Your task to perform on an android device: change the clock display to show seconds Image 0: 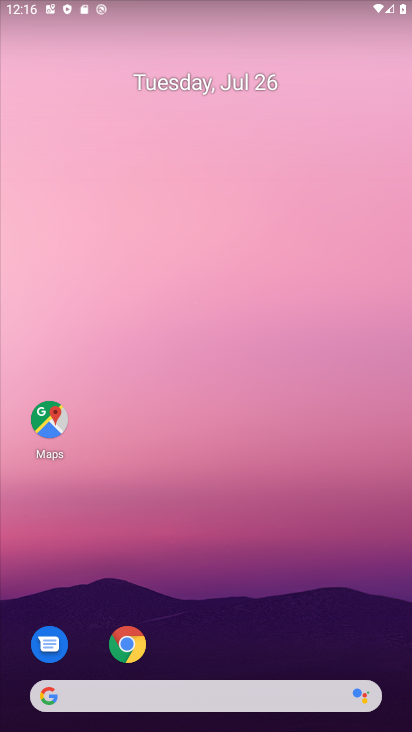
Step 0: drag from (253, 601) to (224, 190)
Your task to perform on an android device: change the clock display to show seconds Image 1: 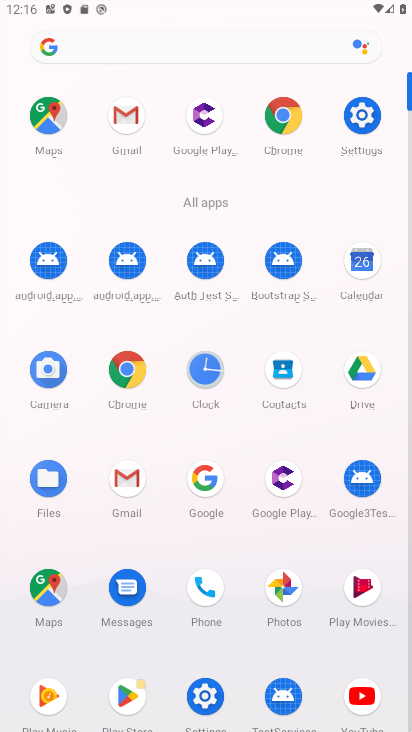
Step 1: click (213, 363)
Your task to perform on an android device: change the clock display to show seconds Image 2: 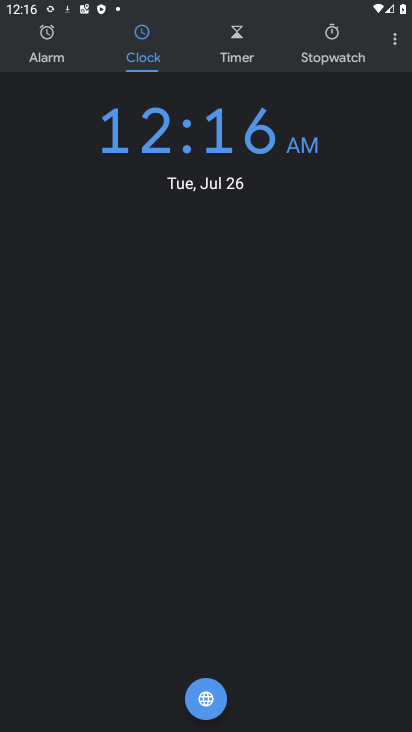
Step 2: click (403, 49)
Your task to perform on an android device: change the clock display to show seconds Image 3: 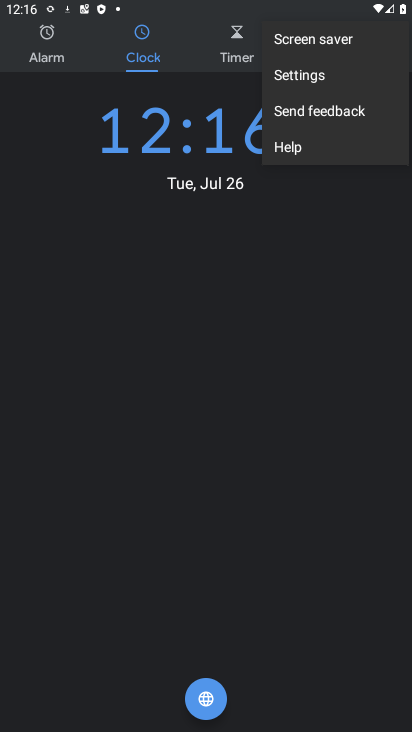
Step 3: click (322, 85)
Your task to perform on an android device: change the clock display to show seconds Image 4: 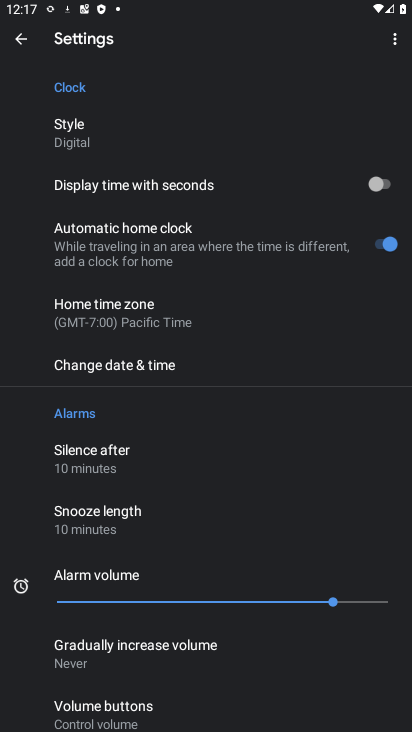
Step 4: click (381, 181)
Your task to perform on an android device: change the clock display to show seconds Image 5: 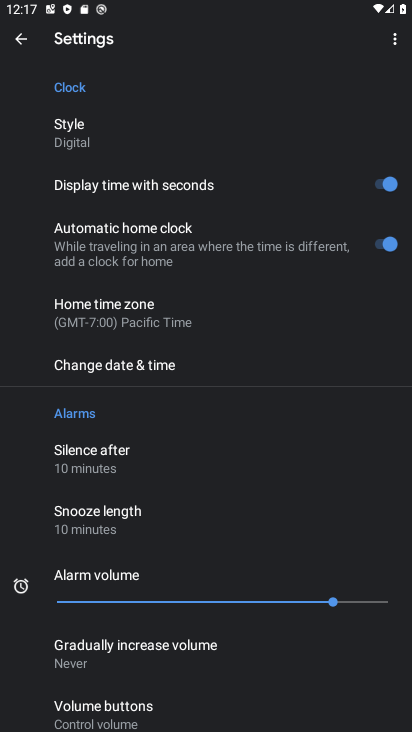
Step 5: task complete